Your task to perform on an android device: Show me the alarms in the clock app Image 0: 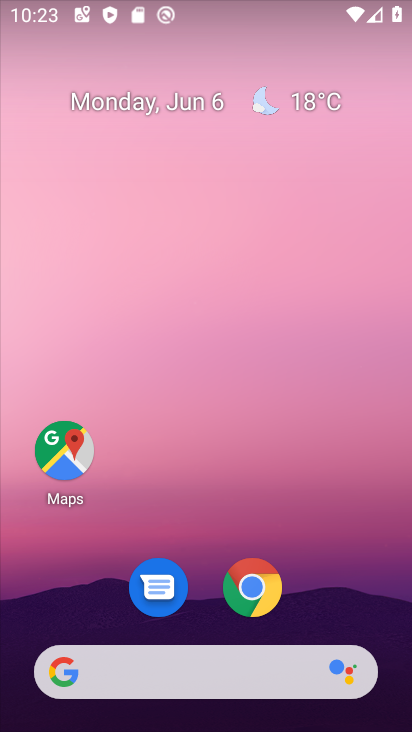
Step 0: drag from (330, 568) to (324, 199)
Your task to perform on an android device: Show me the alarms in the clock app Image 1: 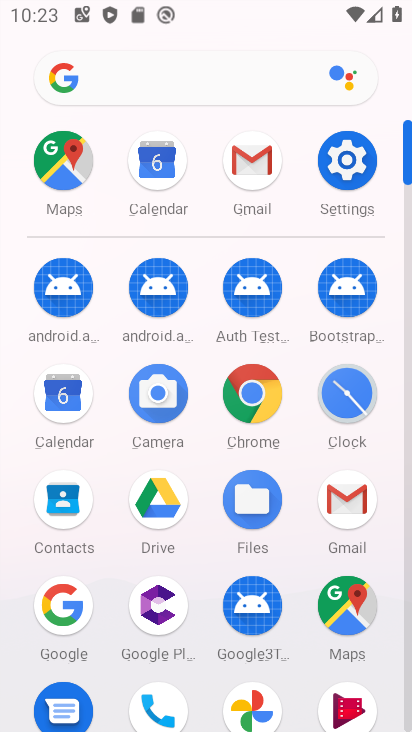
Step 1: click (352, 405)
Your task to perform on an android device: Show me the alarms in the clock app Image 2: 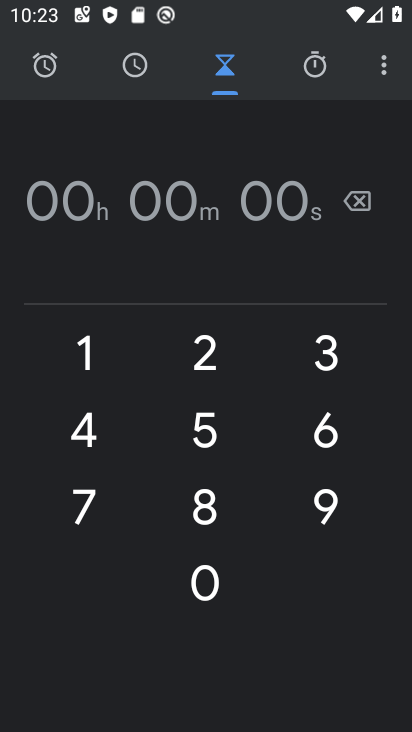
Step 2: click (40, 61)
Your task to perform on an android device: Show me the alarms in the clock app Image 3: 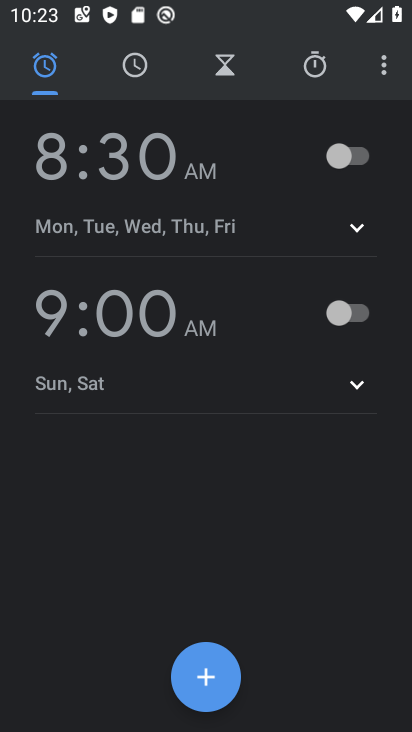
Step 3: task complete